Your task to perform on an android device: Open the calendar app, open the side menu, and click the "Day" option Image 0: 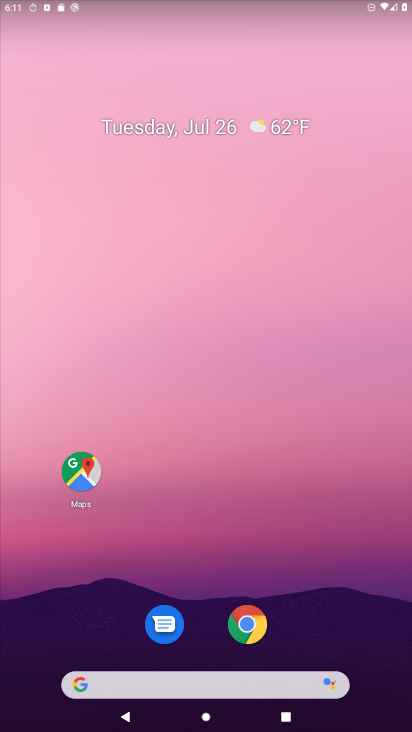
Step 0: drag from (281, 690) to (308, 69)
Your task to perform on an android device: Open the calendar app, open the side menu, and click the "Day" option Image 1: 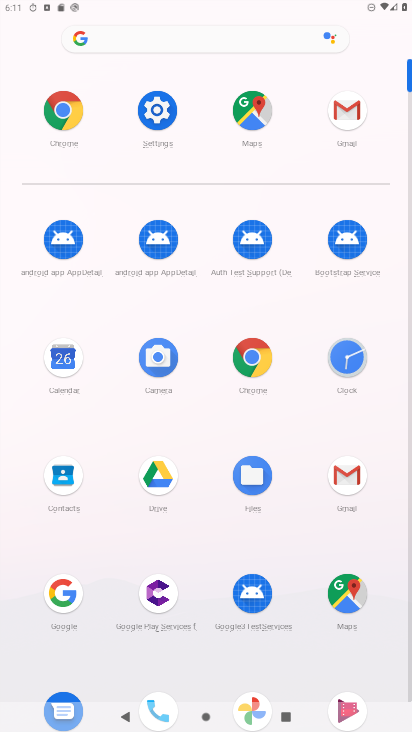
Step 1: click (53, 358)
Your task to perform on an android device: Open the calendar app, open the side menu, and click the "Day" option Image 2: 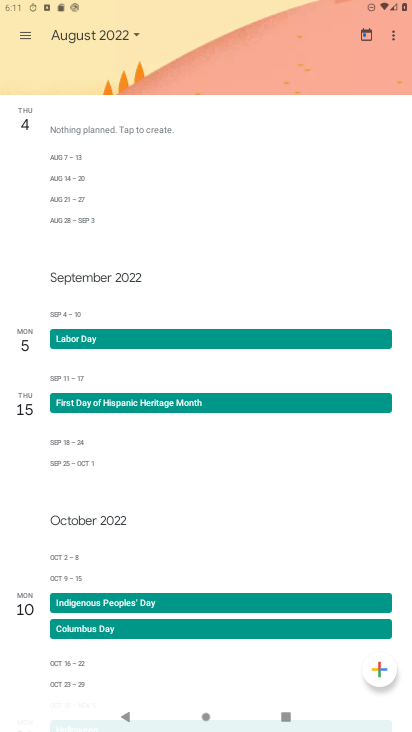
Step 2: click (23, 38)
Your task to perform on an android device: Open the calendar app, open the side menu, and click the "Day" option Image 3: 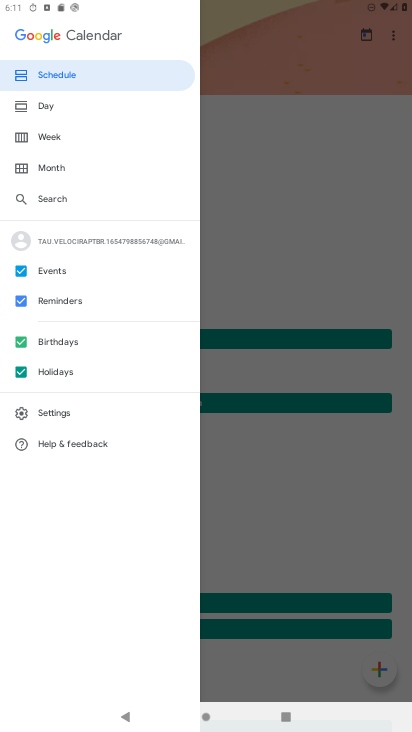
Step 3: click (50, 101)
Your task to perform on an android device: Open the calendar app, open the side menu, and click the "Day" option Image 4: 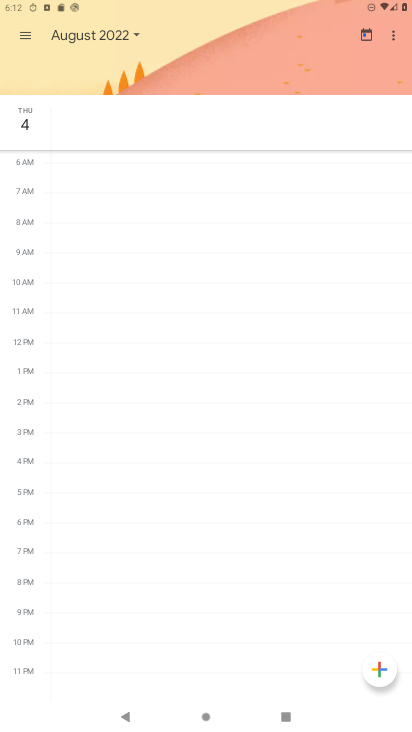
Step 4: task complete